Your task to perform on an android device: Open maps Image 0: 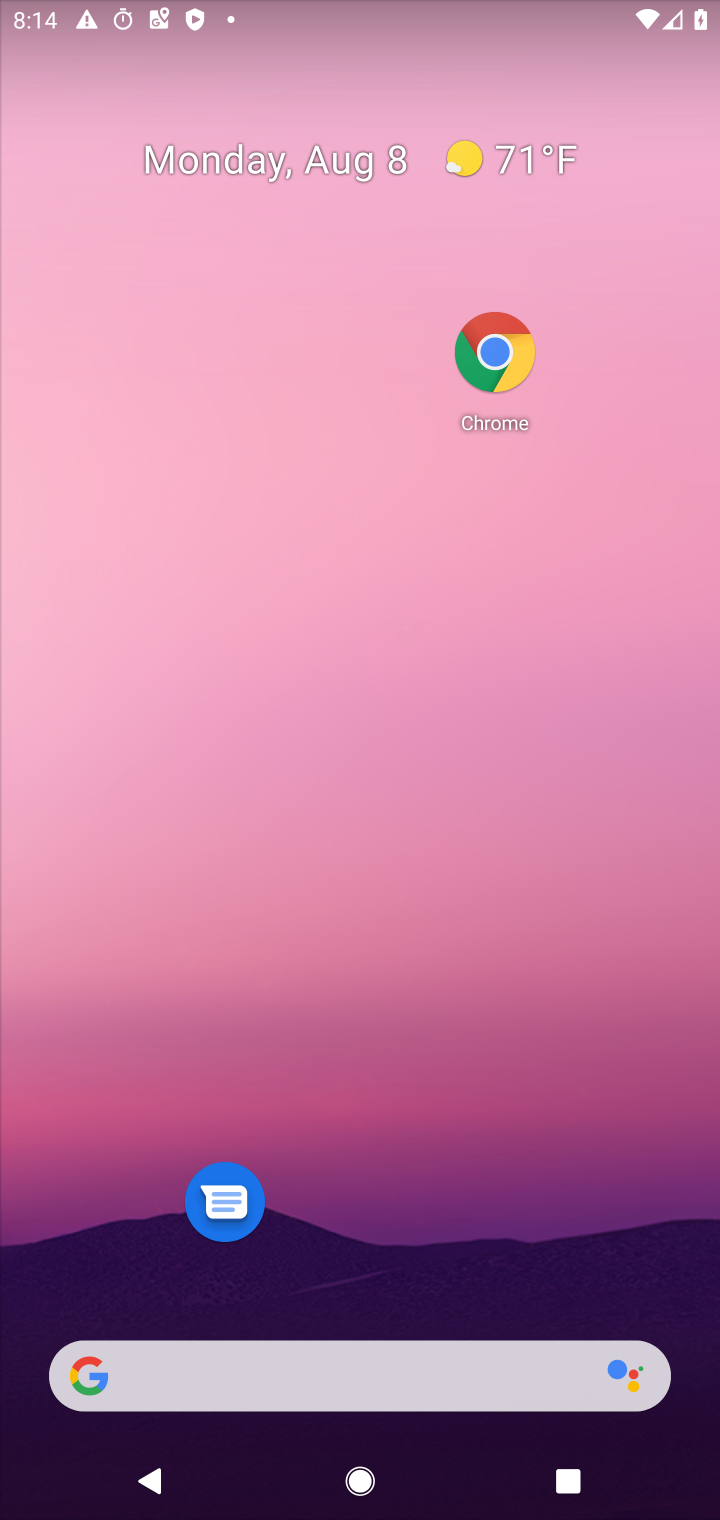
Step 0: drag from (317, 1296) to (423, 277)
Your task to perform on an android device: Open maps Image 1: 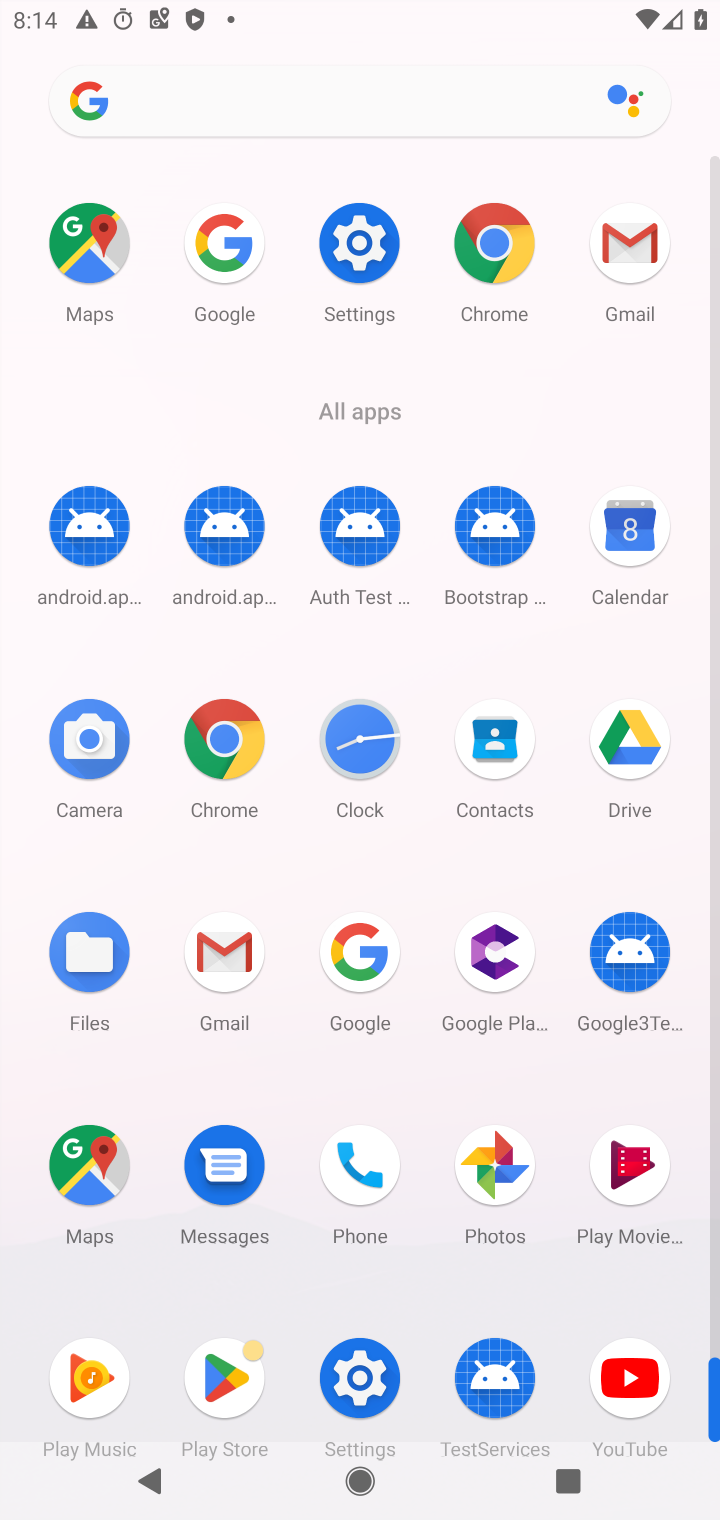
Step 1: click (93, 1172)
Your task to perform on an android device: Open maps Image 2: 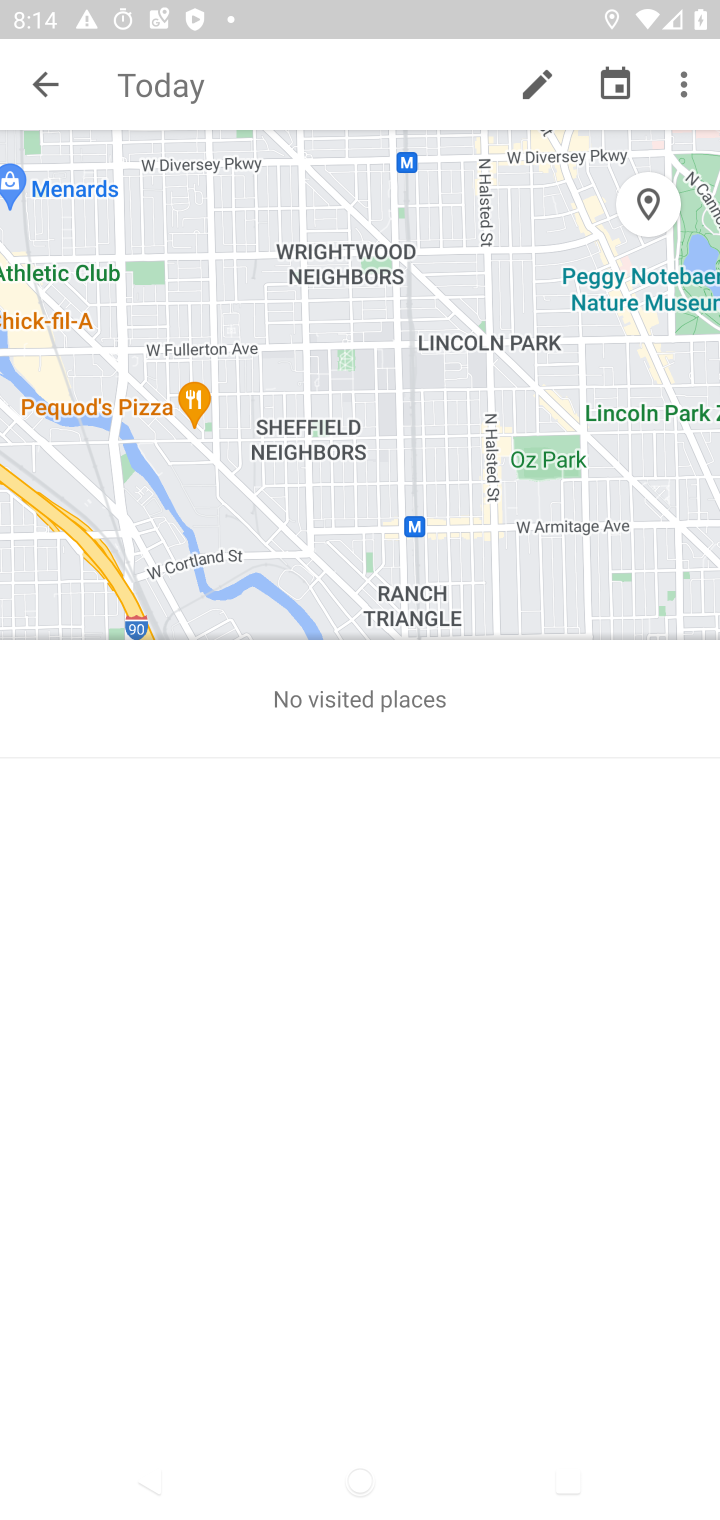
Step 2: task complete